Your task to perform on an android device: Open Youtube and go to "Your channel" Image 0: 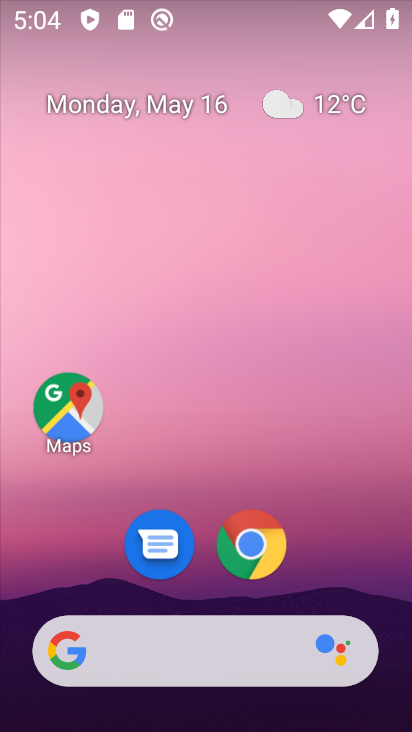
Step 0: drag from (318, 571) to (274, 71)
Your task to perform on an android device: Open Youtube and go to "Your channel" Image 1: 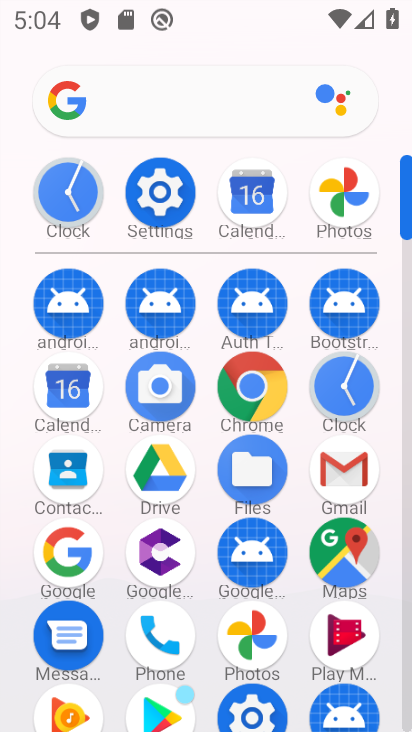
Step 1: drag from (203, 609) to (224, 330)
Your task to perform on an android device: Open Youtube and go to "Your channel" Image 2: 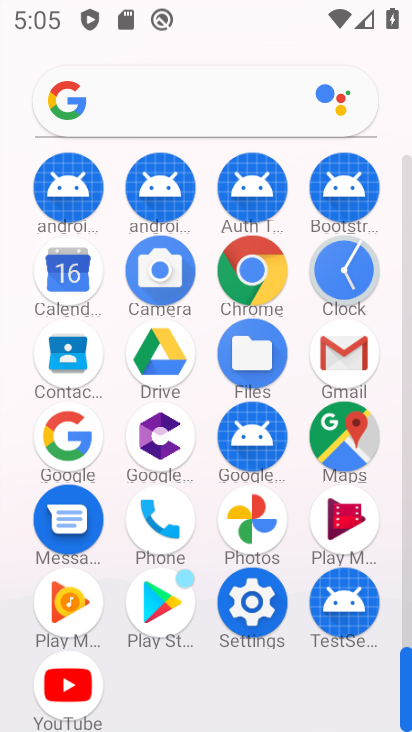
Step 2: click (70, 686)
Your task to perform on an android device: Open Youtube and go to "Your channel" Image 3: 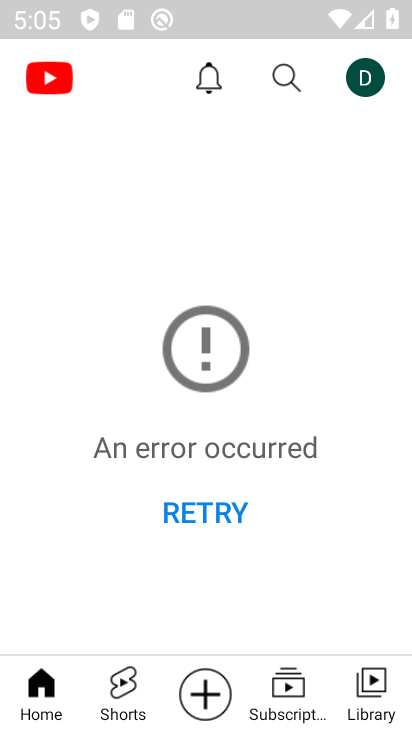
Step 3: click (365, 77)
Your task to perform on an android device: Open Youtube and go to "Your channel" Image 4: 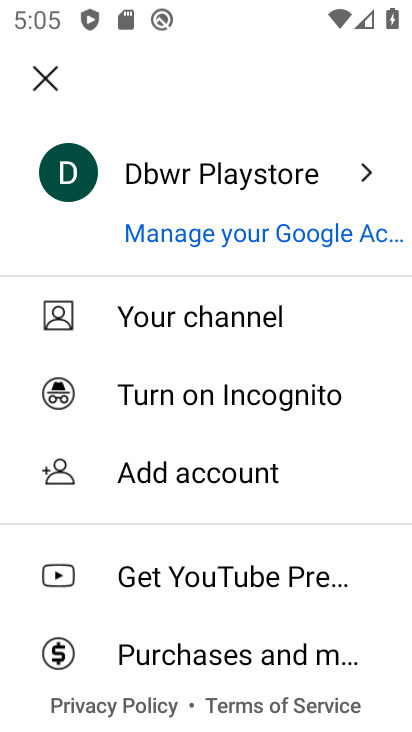
Step 4: click (205, 321)
Your task to perform on an android device: Open Youtube and go to "Your channel" Image 5: 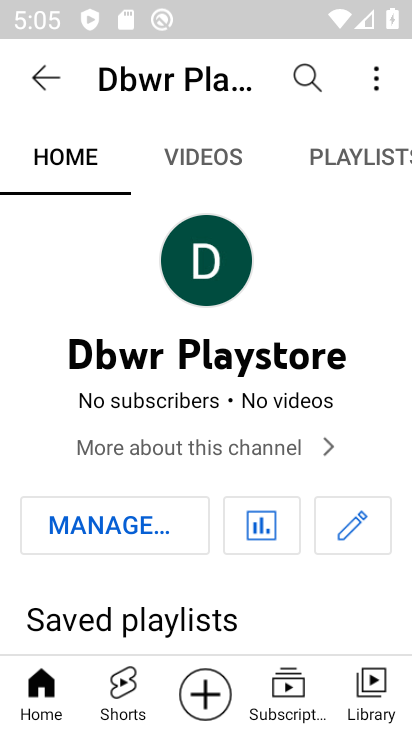
Step 5: task complete